Your task to perform on an android device: open device folders in google photos Image 0: 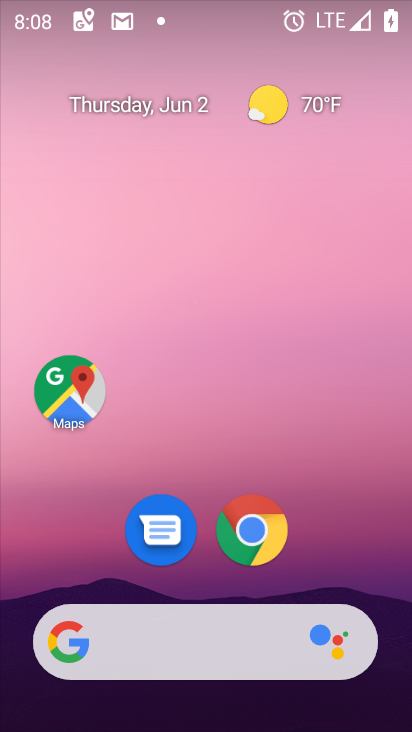
Step 0: drag from (177, 607) to (203, 359)
Your task to perform on an android device: open device folders in google photos Image 1: 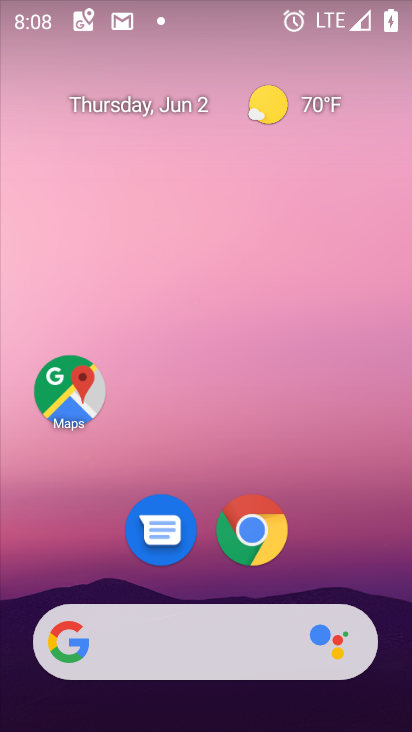
Step 1: drag from (226, 591) to (230, 302)
Your task to perform on an android device: open device folders in google photos Image 2: 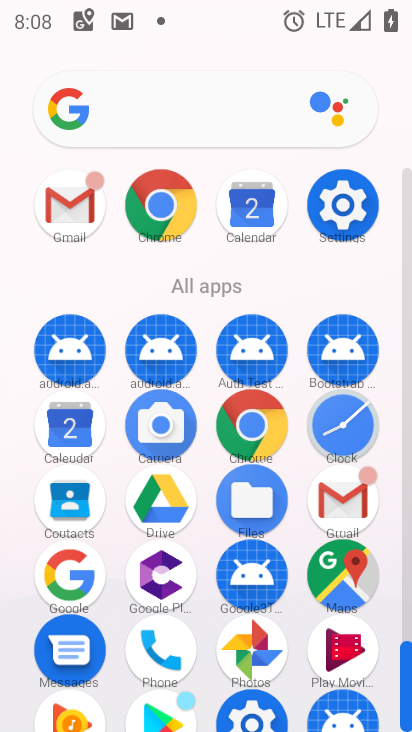
Step 2: click (261, 651)
Your task to perform on an android device: open device folders in google photos Image 3: 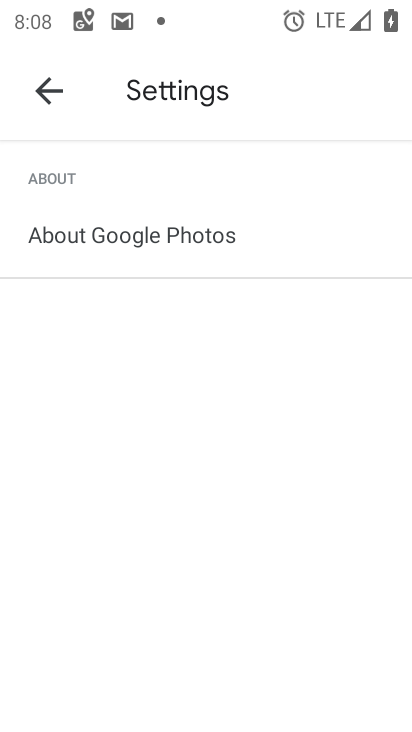
Step 3: click (57, 98)
Your task to perform on an android device: open device folders in google photos Image 4: 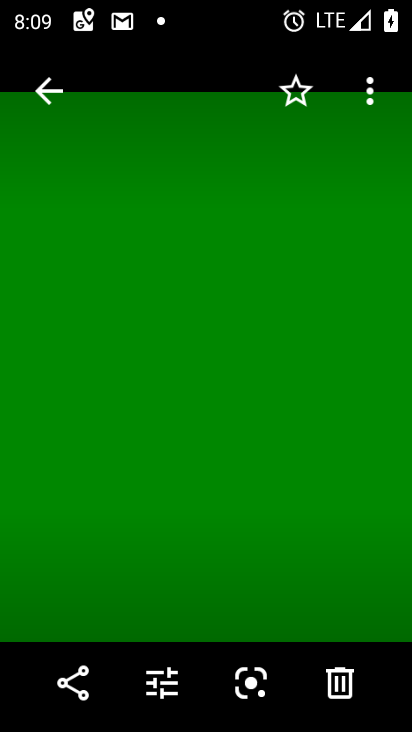
Step 4: click (60, 97)
Your task to perform on an android device: open device folders in google photos Image 5: 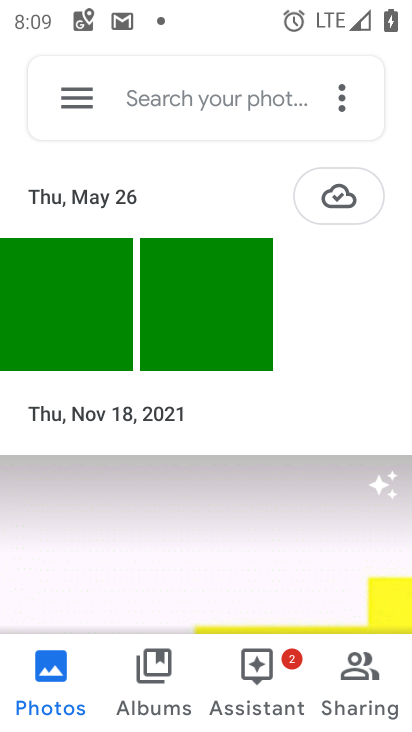
Step 5: click (65, 94)
Your task to perform on an android device: open device folders in google photos Image 6: 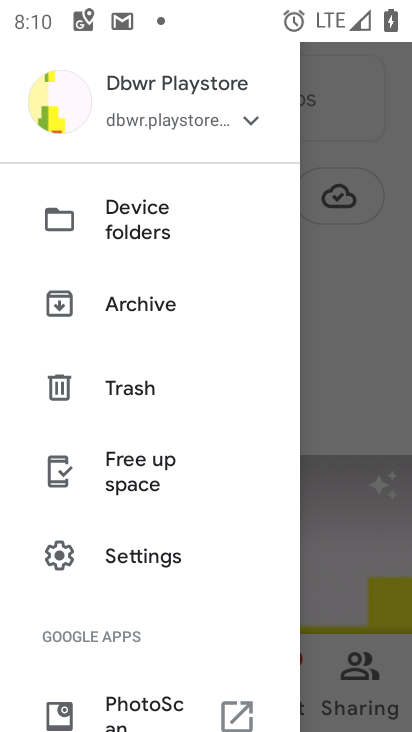
Step 6: click (156, 217)
Your task to perform on an android device: open device folders in google photos Image 7: 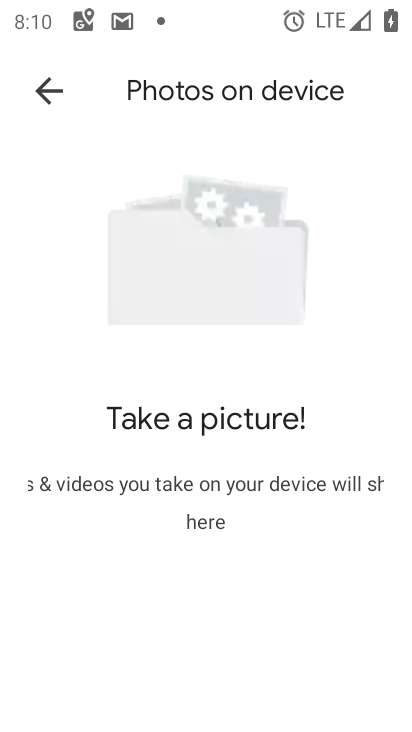
Step 7: task complete